Your task to perform on an android device: turn off javascript in the chrome app Image 0: 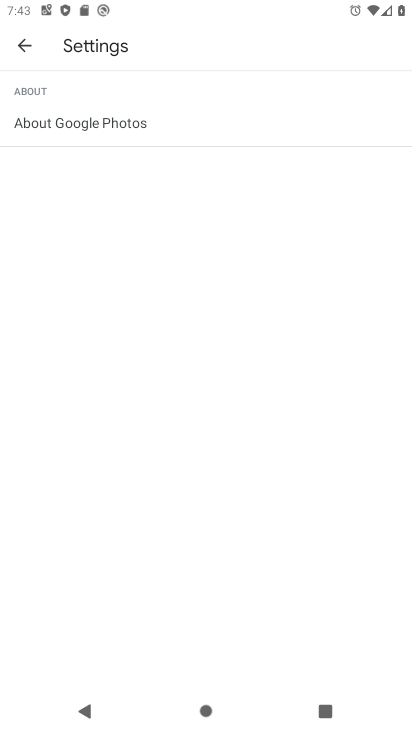
Step 0: press home button
Your task to perform on an android device: turn off javascript in the chrome app Image 1: 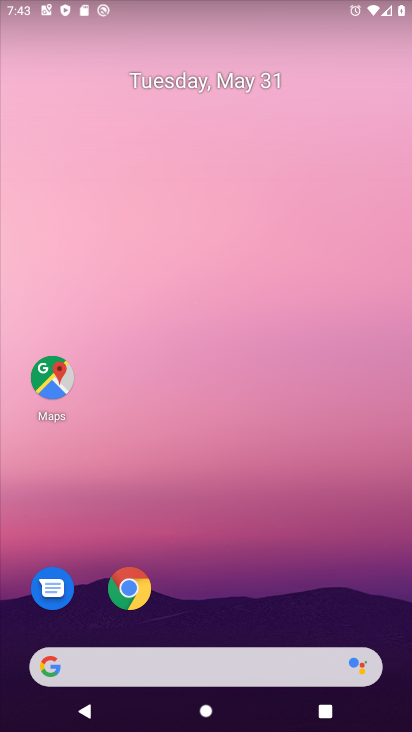
Step 1: click (143, 588)
Your task to perform on an android device: turn off javascript in the chrome app Image 2: 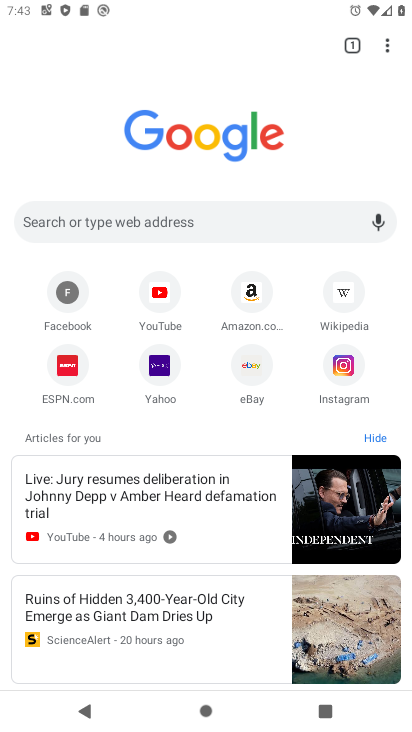
Step 2: click (389, 52)
Your task to perform on an android device: turn off javascript in the chrome app Image 3: 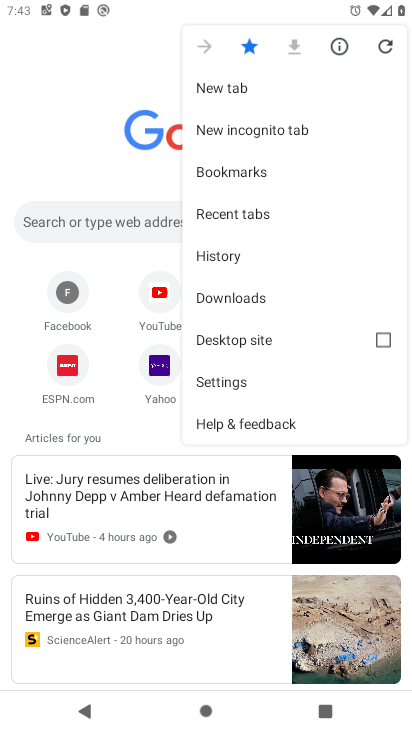
Step 3: click (226, 387)
Your task to perform on an android device: turn off javascript in the chrome app Image 4: 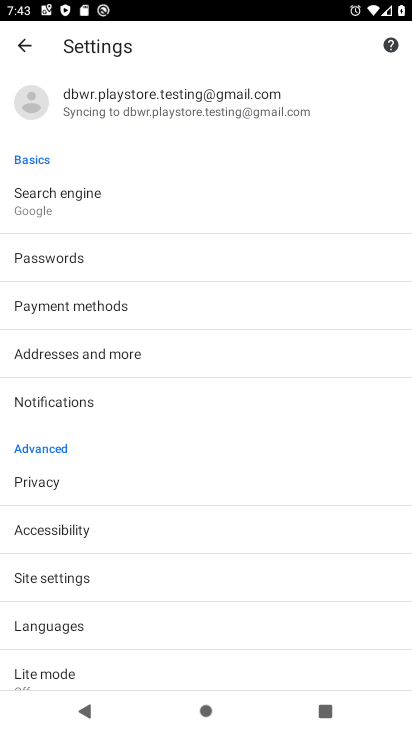
Step 4: drag from (117, 594) to (150, 466)
Your task to perform on an android device: turn off javascript in the chrome app Image 5: 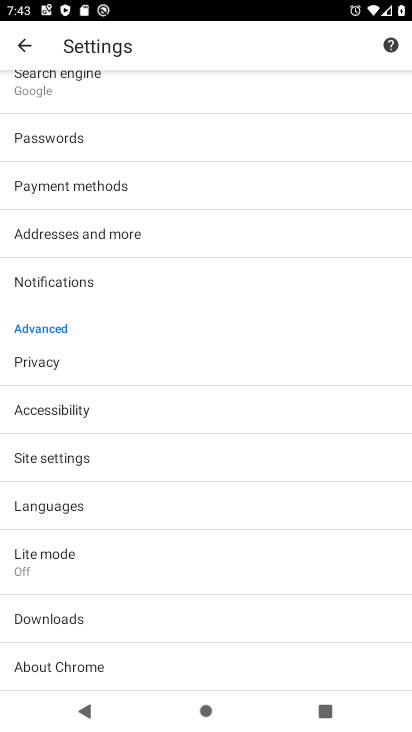
Step 5: click (89, 455)
Your task to perform on an android device: turn off javascript in the chrome app Image 6: 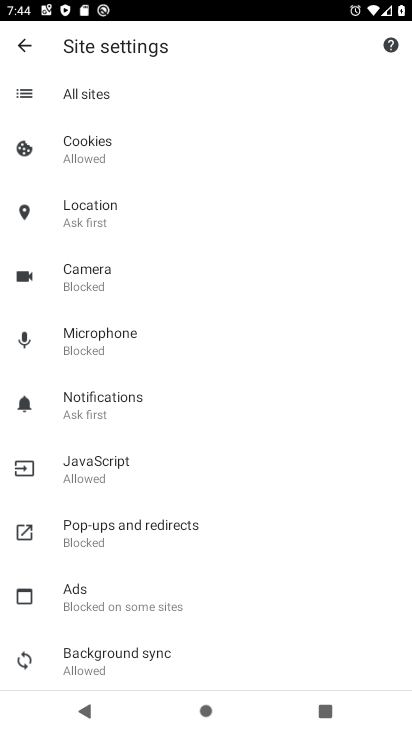
Step 6: click (125, 469)
Your task to perform on an android device: turn off javascript in the chrome app Image 7: 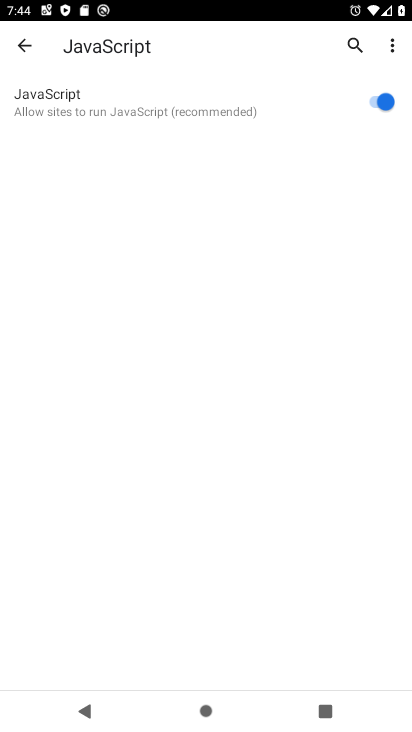
Step 7: click (353, 105)
Your task to perform on an android device: turn off javascript in the chrome app Image 8: 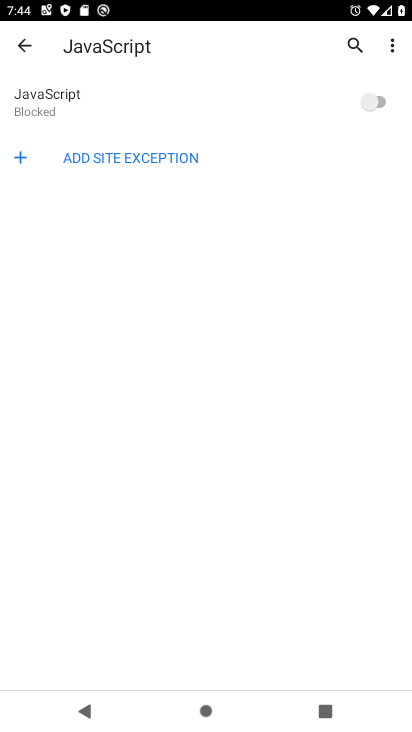
Step 8: task complete